Your task to perform on an android device: turn off priority inbox in the gmail app Image 0: 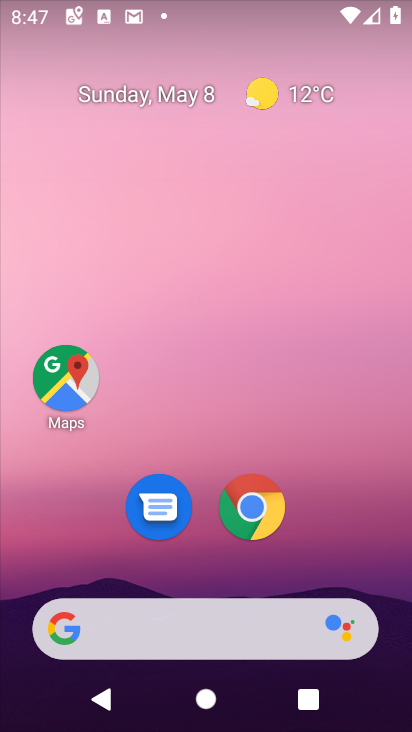
Step 0: drag from (233, 662) to (166, 13)
Your task to perform on an android device: turn off priority inbox in the gmail app Image 1: 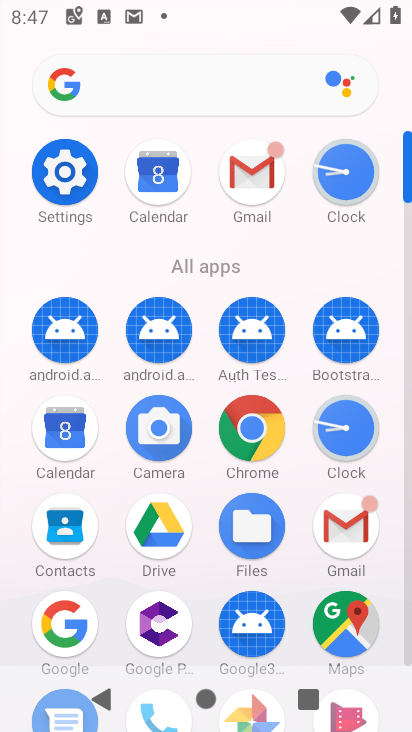
Step 1: click (263, 171)
Your task to perform on an android device: turn off priority inbox in the gmail app Image 2: 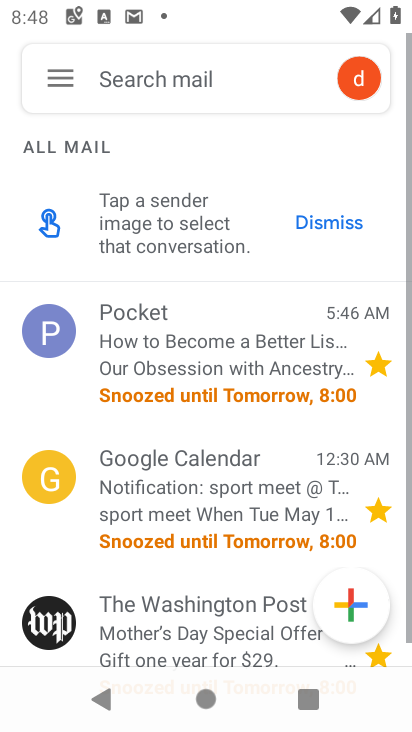
Step 2: click (59, 77)
Your task to perform on an android device: turn off priority inbox in the gmail app Image 3: 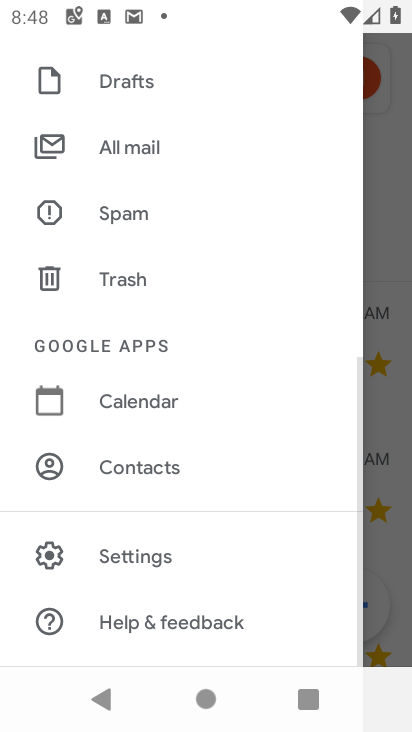
Step 3: click (162, 558)
Your task to perform on an android device: turn off priority inbox in the gmail app Image 4: 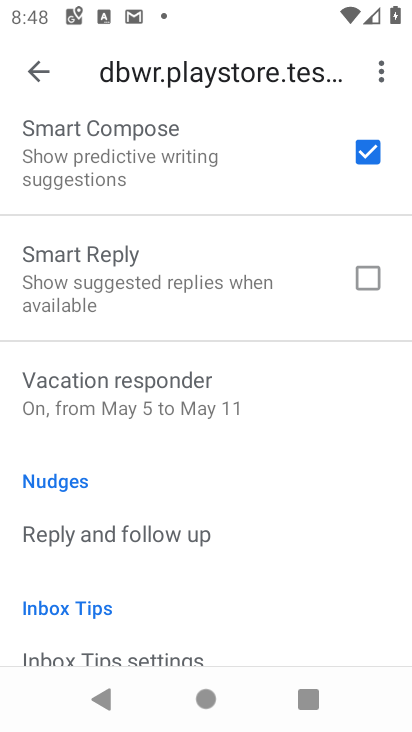
Step 4: drag from (254, 216) to (241, 723)
Your task to perform on an android device: turn off priority inbox in the gmail app Image 5: 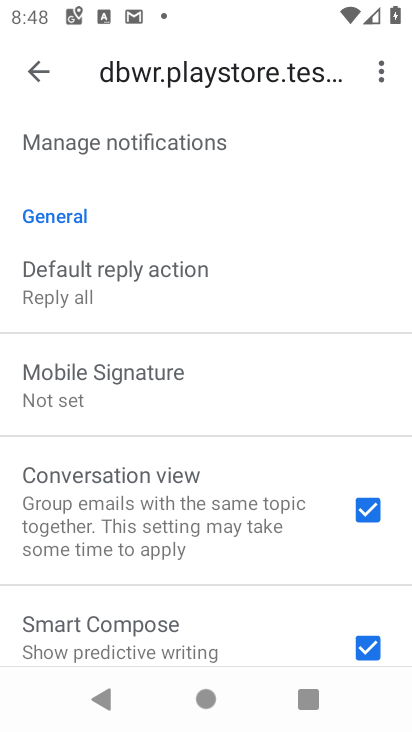
Step 5: drag from (232, 238) to (244, 602)
Your task to perform on an android device: turn off priority inbox in the gmail app Image 6: 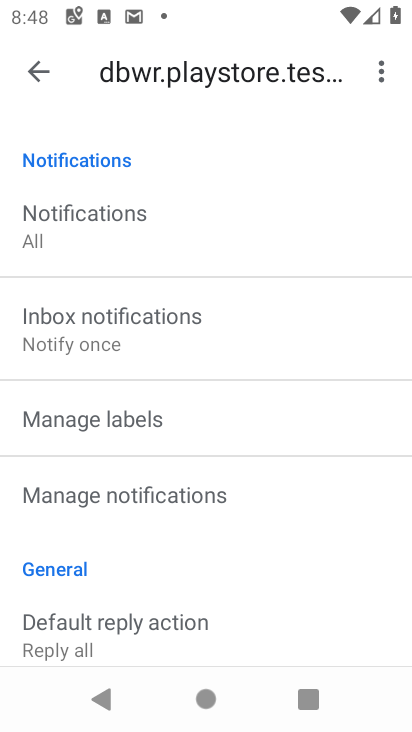
Step 6: drag from (243, 197) to (261, 730)
Your task to perform on an android device: turn off priority inbox in the gmail app Image 7: 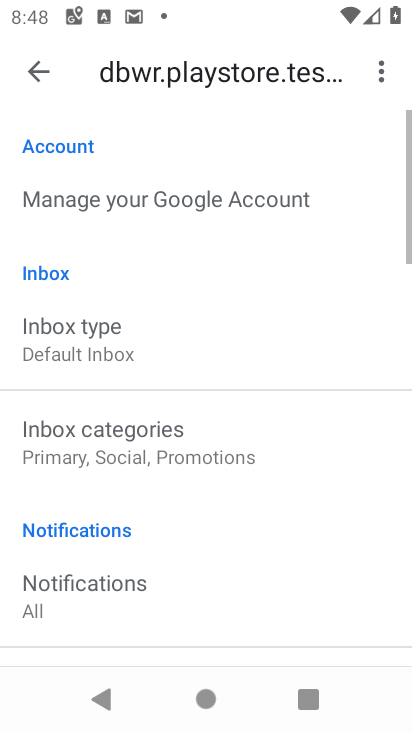
Step 7: click (73, 339)
Your task to perform on an android device: turn off priority inbox in the gmail app Image 8: 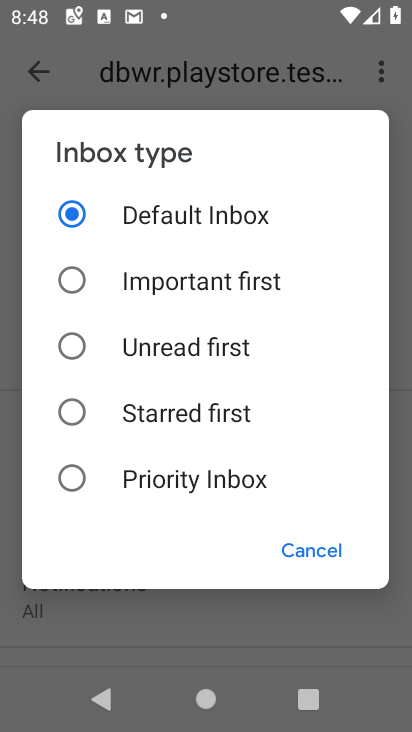
Step 8: task complete